Your task to perform on an android device: turn off improve location accuracy Image 0: 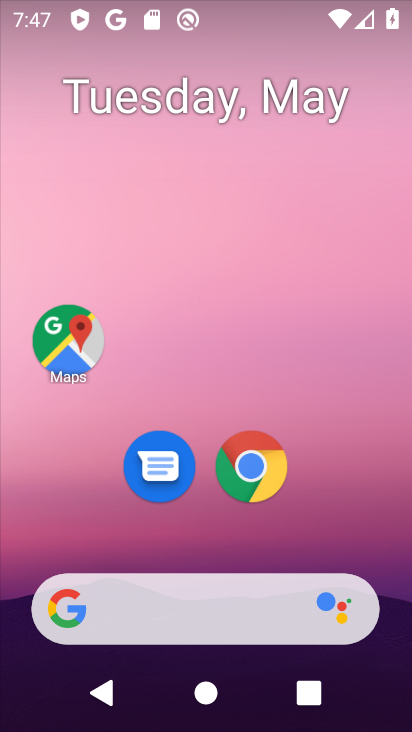
Step 0: drag from (160, 572) to (247, 175)
Your task to perform on an android device: turn off improve location accuracy Image 1: 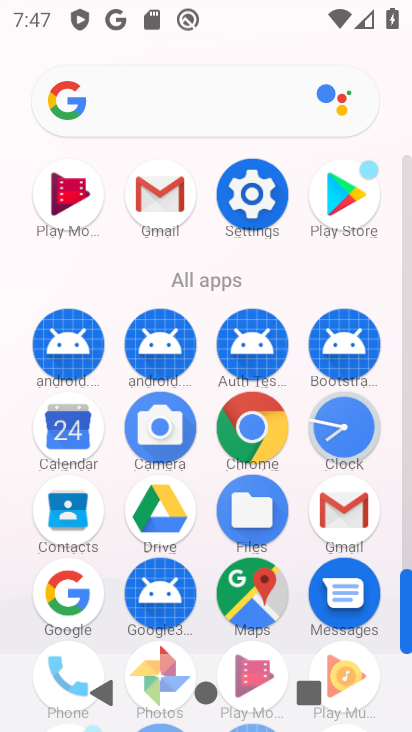
Step 1: click (256, 193)
Your task to perform on an android device: turn off improve location accuracy Image 2: 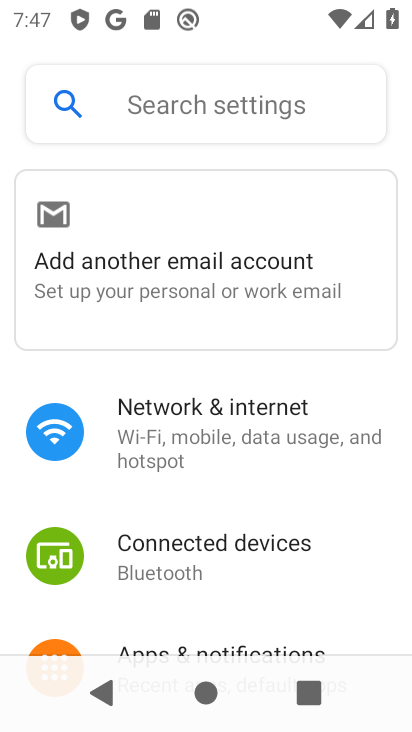
Step 2: drag from (235, 623) to (291, 137)
Your task to perform on an android device: turn off improve location accuracy Image 3: 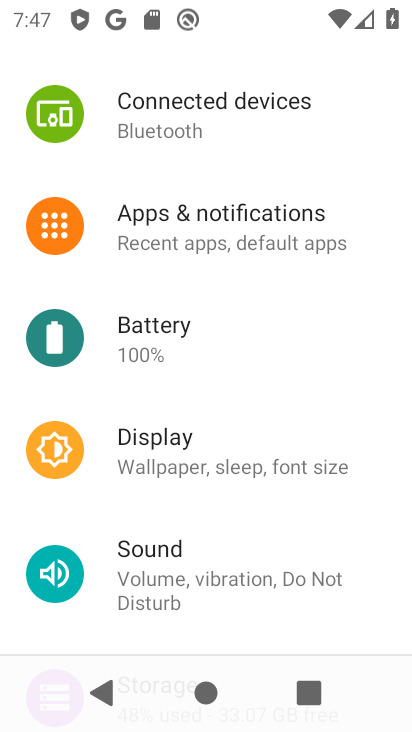
Step 3: drag from (229, 605) to (259, 241)
Your task to perform on an android device: turn off improve location accuracy Image 4: 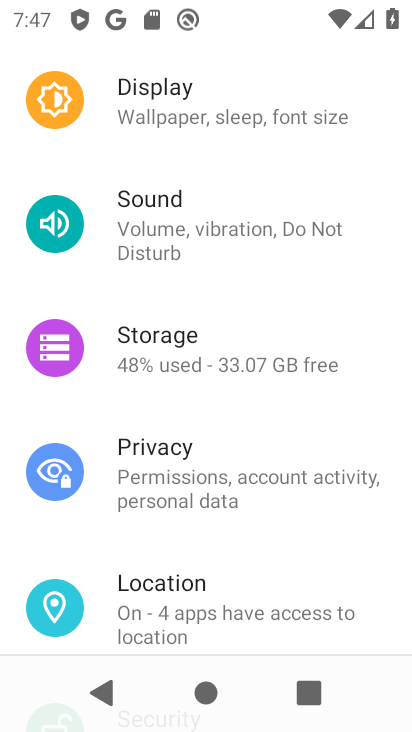
Step 4: click (187, 621)
Your task to perform on an android device: turn off improve location accuracy Image 5: 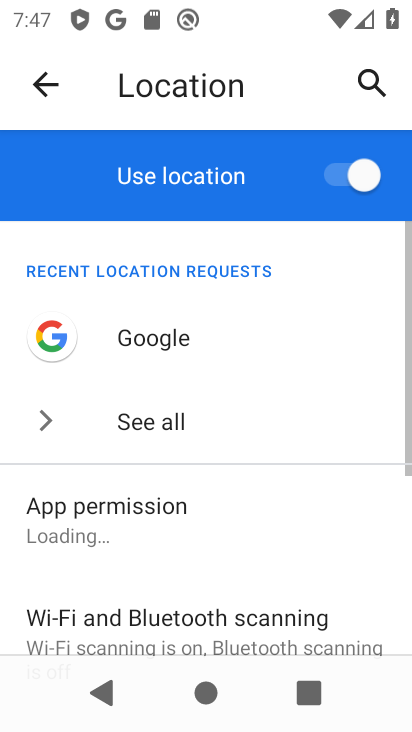
Step 5: drag from (178, 637) to (262, 238)
Your task to perform on an android device: turn off improve location accuracy Image 6: 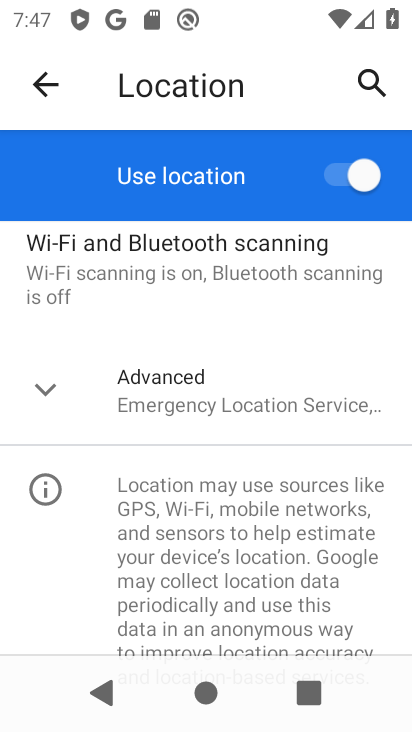
Step 6: click (181, 384)
Your task to perform on an android device: turn off improve location accuracy Image 7: 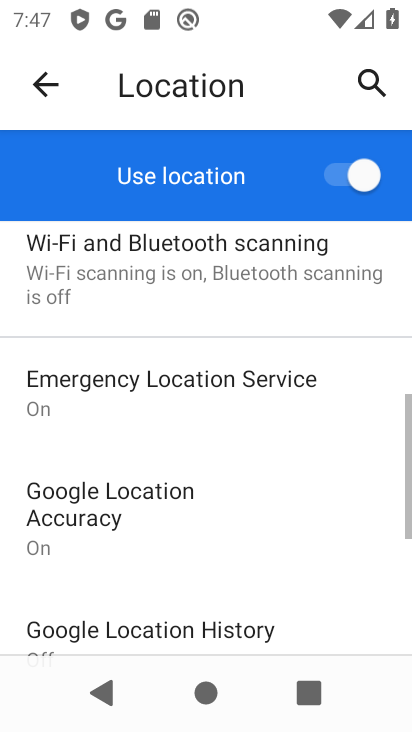
Step 7: drag from (174, 619) to (196, 300)
Your task to perform on an android device: turn off improve location accuracy Image 8: 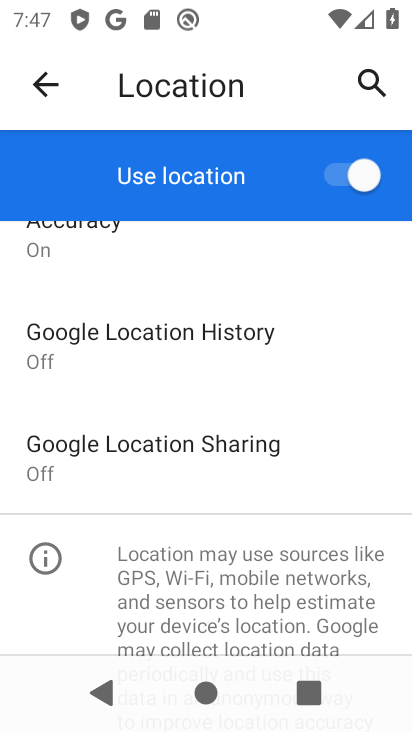
Step 8: click (67, 229)
Your task to perform on an android device: turn off improve location accuracy Image 9: 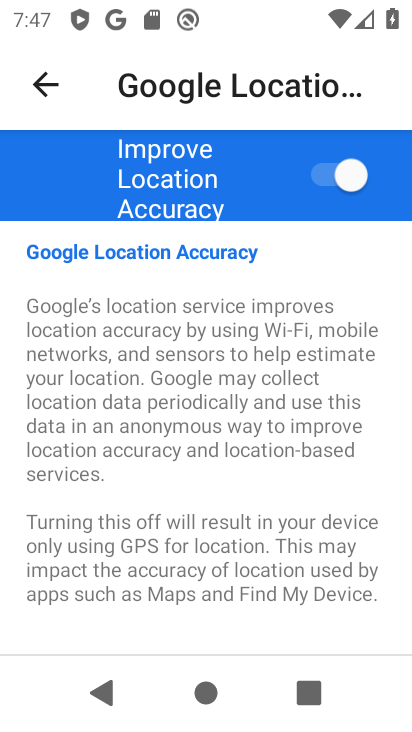
Step 9: click (330, 181)
Your task to perform on an android device: turn off improve location accuracy Image 10: 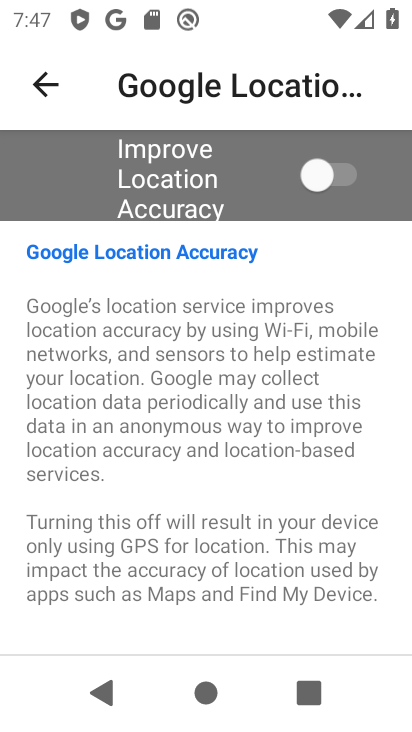
Step 10: task complete